Your task to perform on an android device: change keyboard looks Image 0: 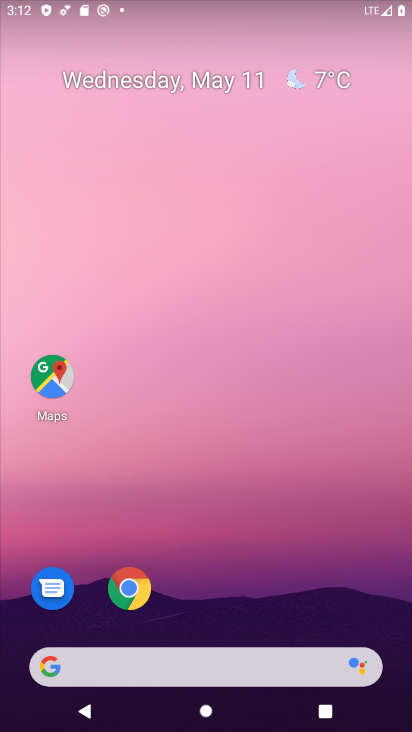
Step 0: drag from (230, 719) to (236, 1)
Your task to perform on an android device: change keyboard looks Image 1: 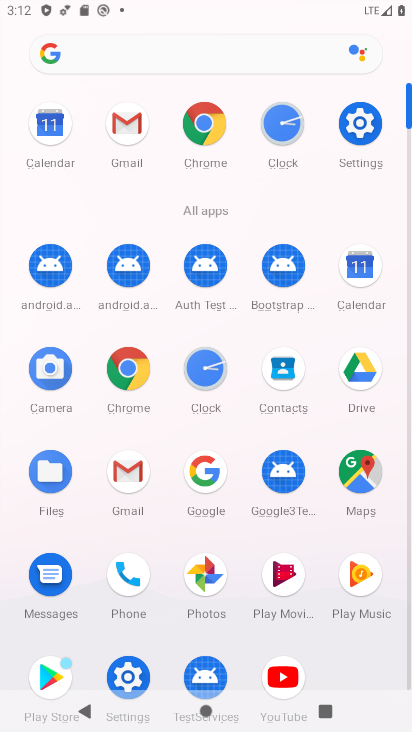
Step 1: click (365, 120)
Your task to perform on an android device: change keyboard looks Image 2: 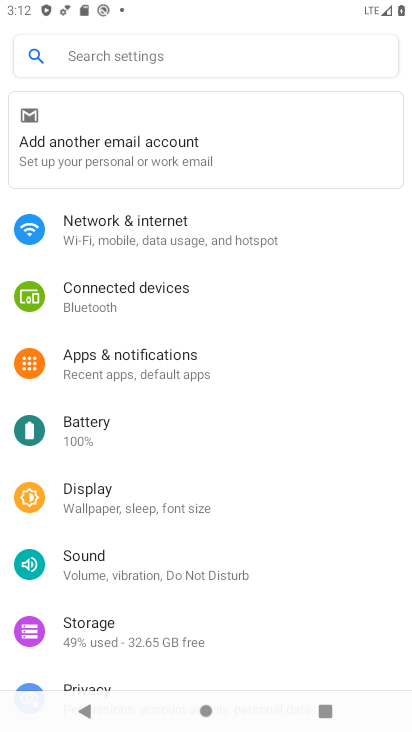
Step 2: drag from (149, 657) to (133, 179)
Your task to perform on an android device: change keyboard looks Image 3: 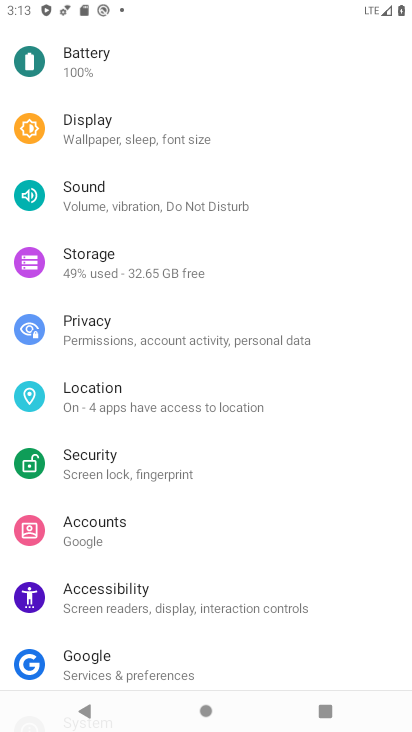
Step 3: drag from (164, 652) to (153, 245)
Your task to perform on an android device: change keyboard looks Image 4: 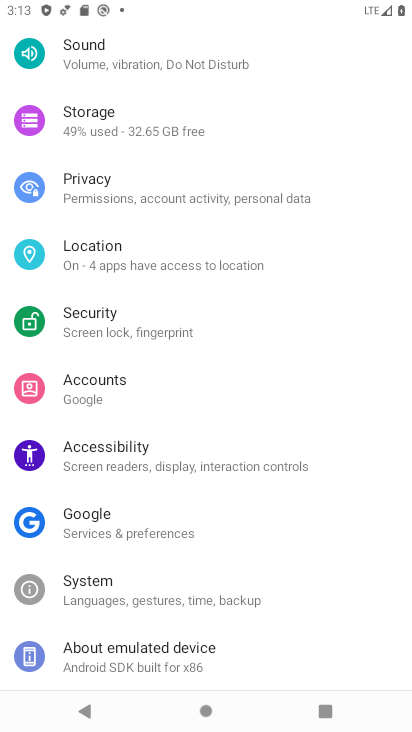
Step 4: drag from (170, 669) to (166, 248)
Your task to perform on an android device: change keyboard looks Image 5: 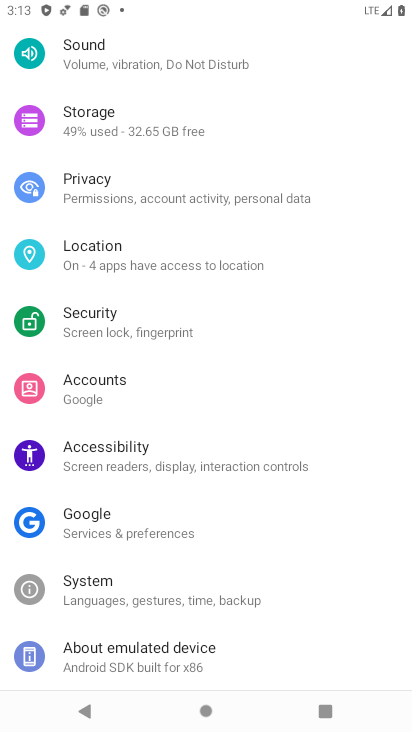
Step 5: click (98, 597)
Your task to perform on an android device: change keyboard looks Image 6: 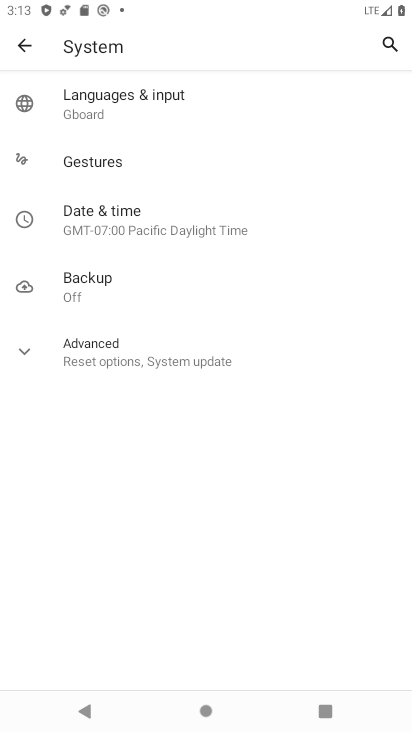
Step 6: click (119, 94)
Your task to perform on an android device: change keyboard looks Image 7: 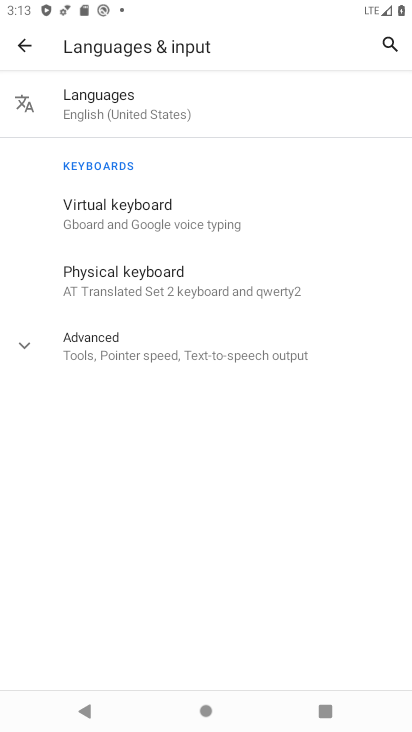
Step 7: click (157, 212)
Your task to perform on an android device: change keyboard looks Image 8: 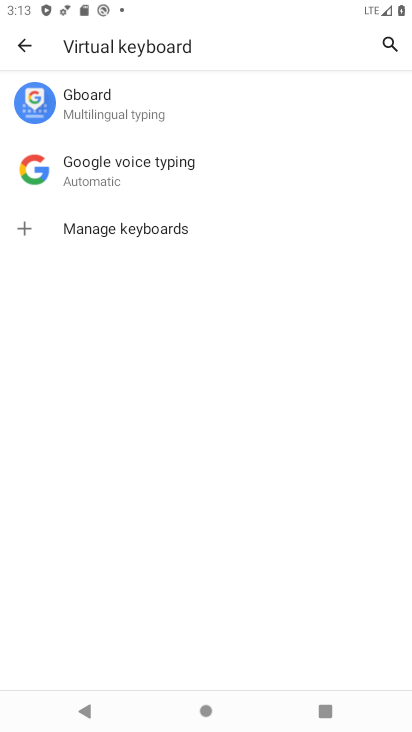
Step 8: click (88, 102)
Your task to perform on an android device: change keyboard looks Image 9: 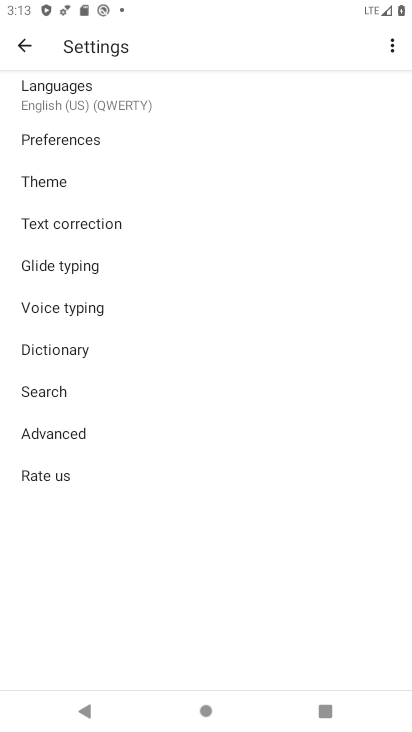
Step 9: click (42, 177)
Your task to perform on an android device: change keyboard looks Image 10: 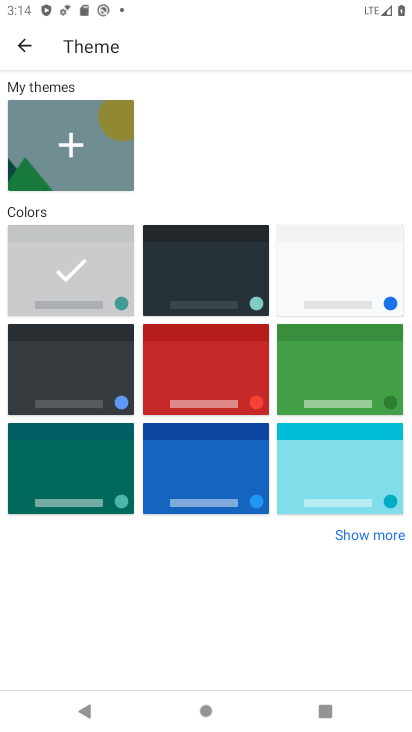
Step 10: click (222, 271)
Your task to perform on an android device: change keyboard looks Image 11: 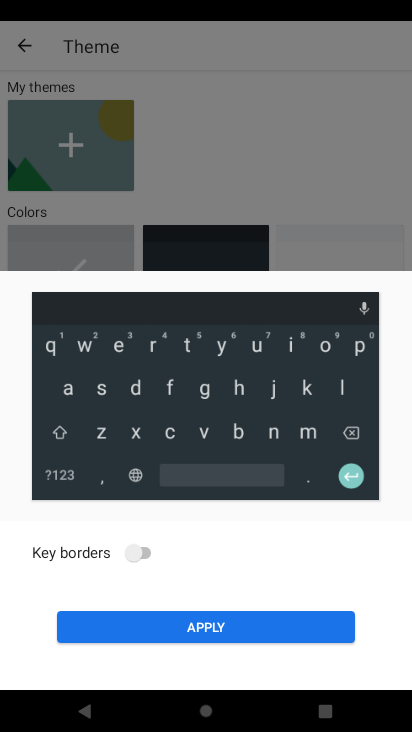
Step 11: click (145, 554)
Your task to perform on an android device: change keyboard looks Image 12: 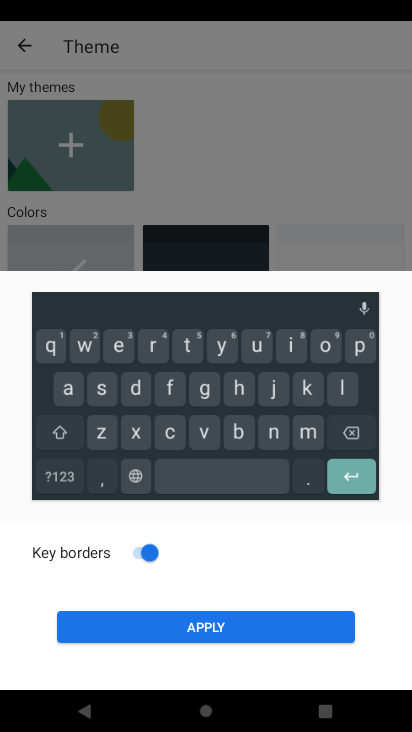
Step 12: click (177, 627)
Your task to perform on an android device: change keyboard looks Image 13: 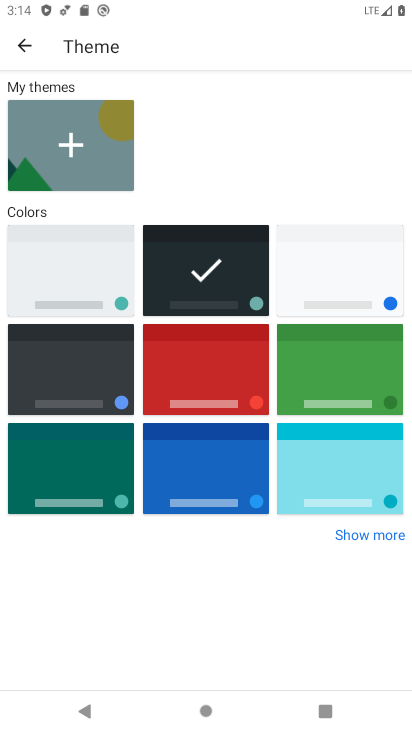
Step 13: task complete